Your task to perform on an android device: What does the iPhone 8 look like? Image 0: 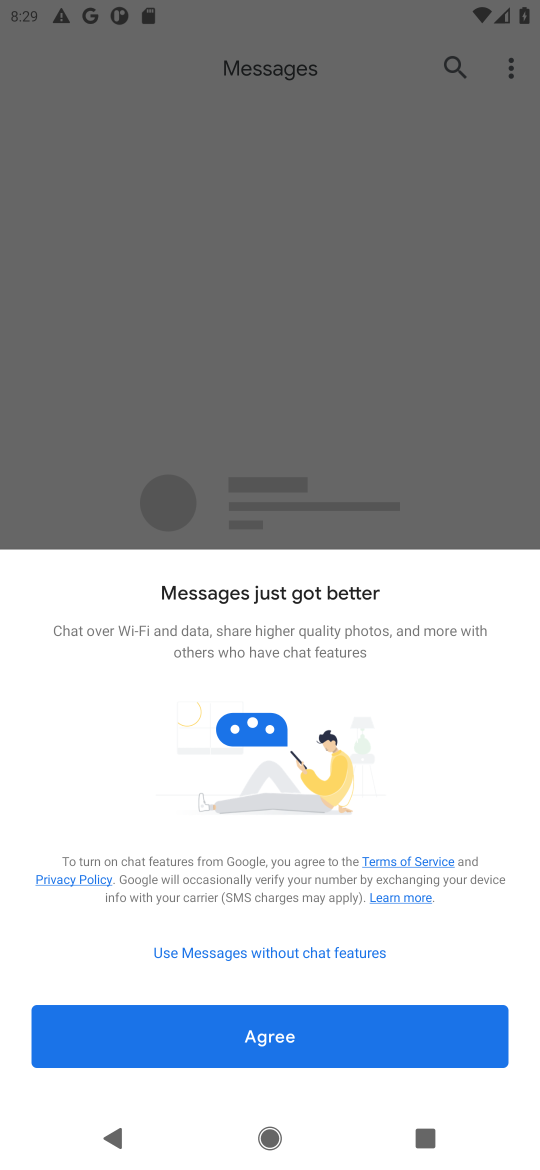
Step 0: press home button
Your task to perform on an android device: What does the iPhone 8 look like? Image 1: 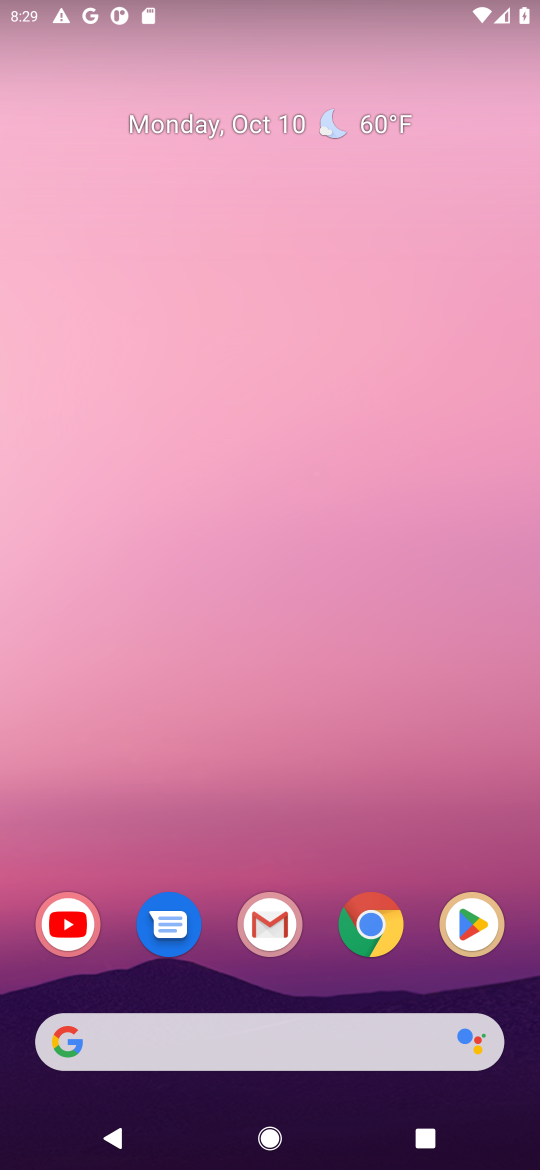
Step 1: click (330, 718)
Your task to perform on an android device: What does the iPhone 8 look like? Image 2: 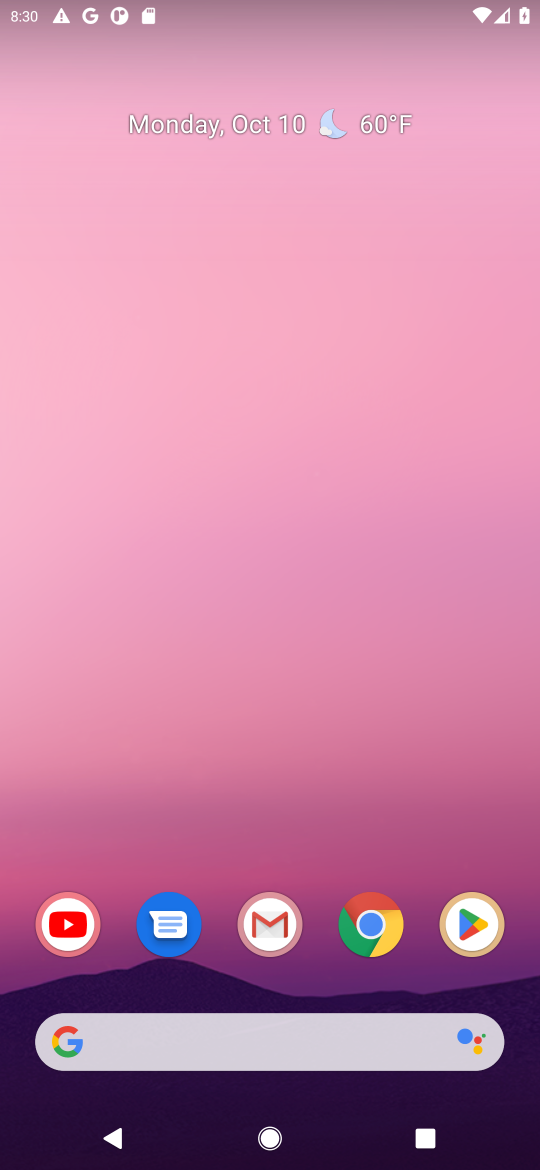
Step 2: drag from (312, 879) to (362, 167)
Your task to perform on an android device: What does the iPhone 8 look like? Image 3: 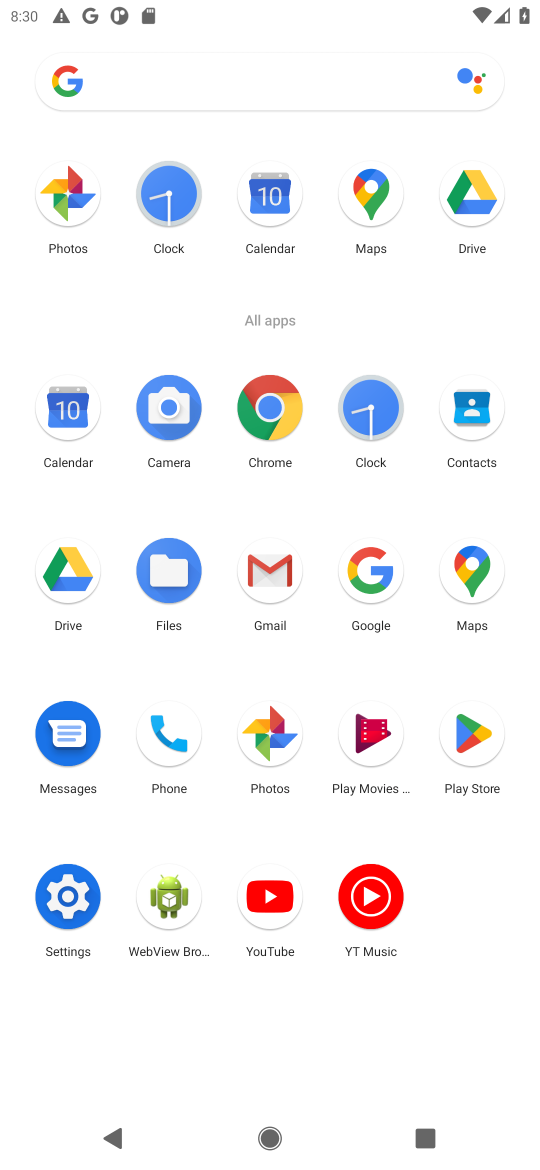
Step 3: click (429, 581)
Your task to perform on an android device: What does the iPhone 8 look like? Image 4: 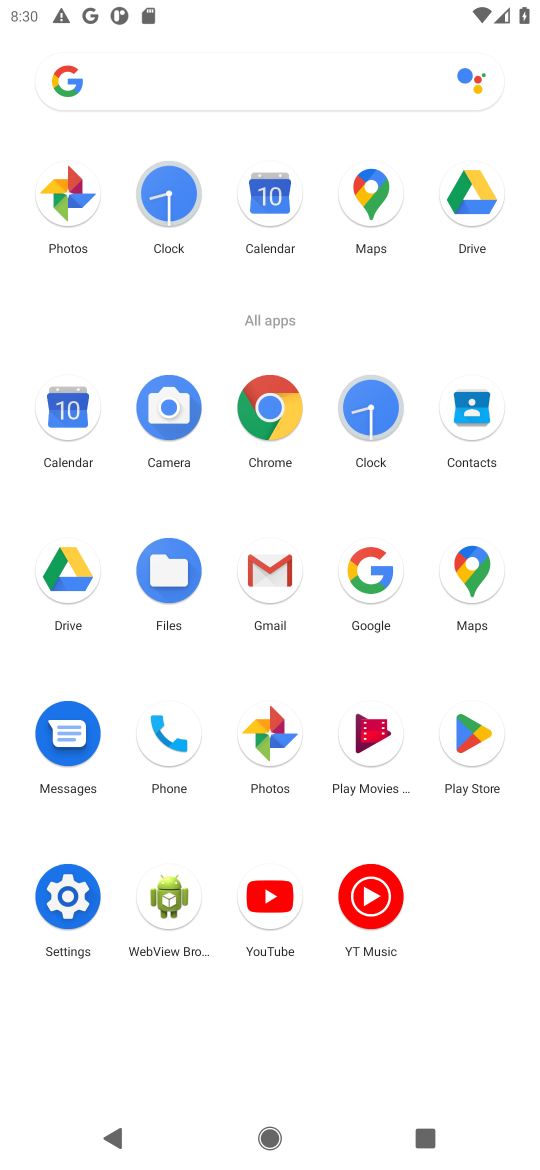
Step 4: click (355, 609)
Your task to perform on an android device: What does the iPhone 8 look like? Image 5: 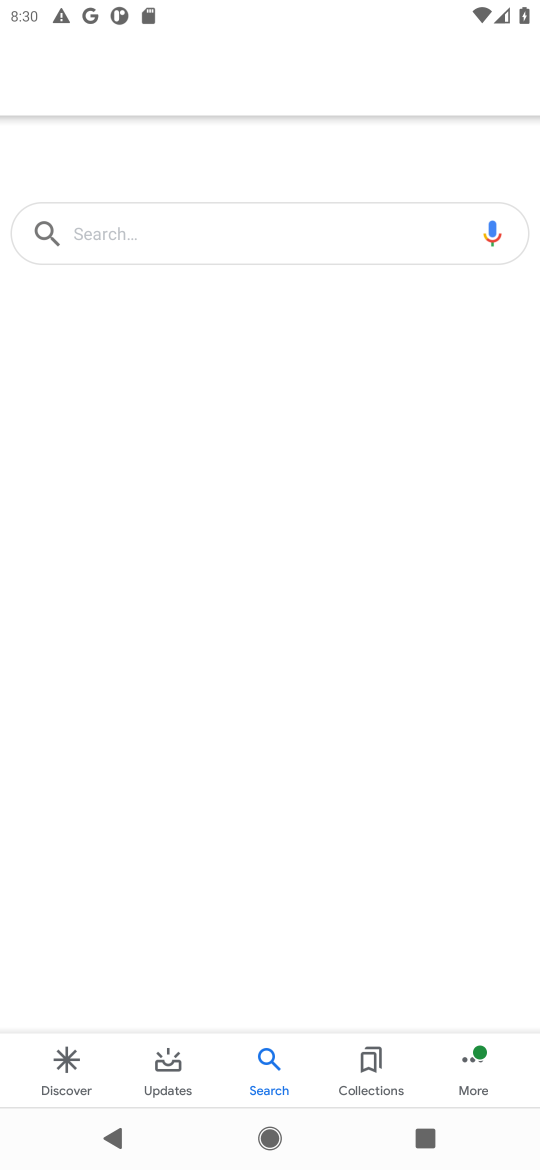
Step 5: click (271, 238)
Your task to perform on an android device: What does the iPhone 8 look like? Image 6: 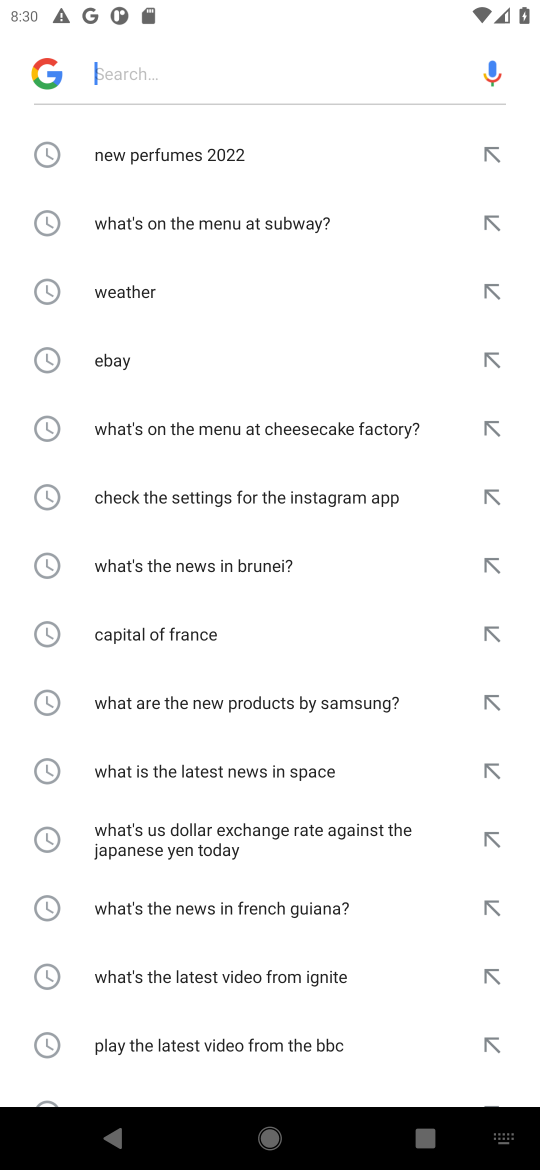
Step 6: type "What does the iPhone 8 look like?"
Your task to perform on an android device: What does the iPhone 8 look like? Image 7: 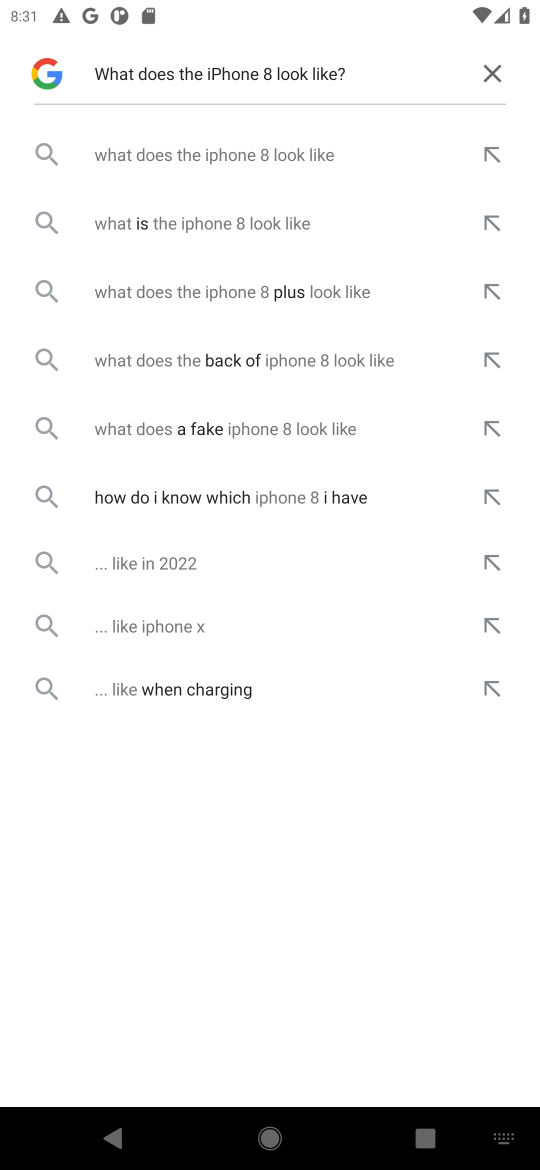
Step 7: type "What does the iPhone 8 look like?"
Your task to perform on an android device: What does the iPhone 8 look like? Image 8: 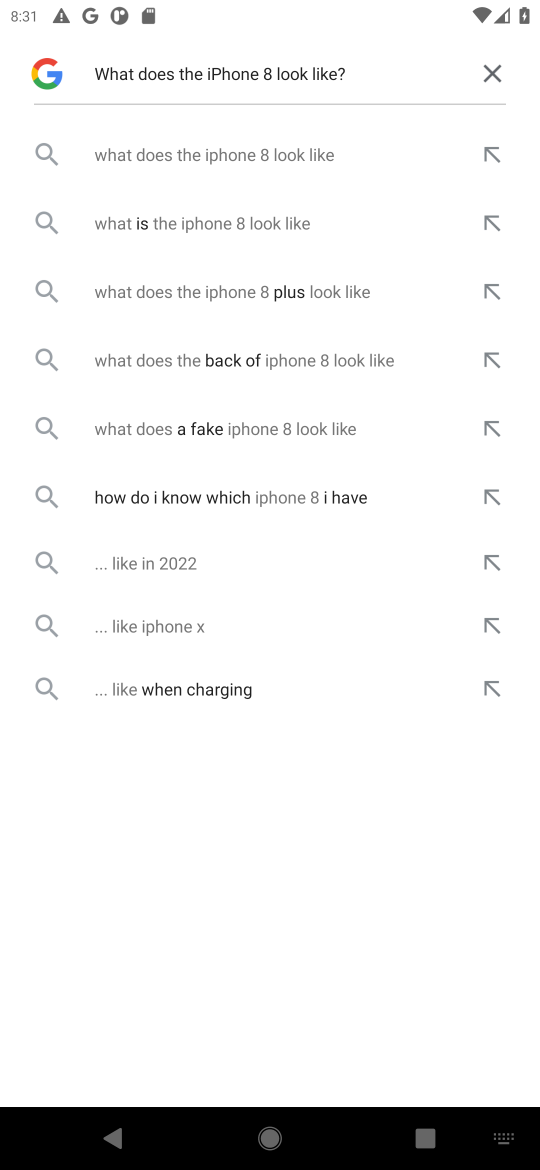
Step 8: click (303, 172)
Your task to perform on an android device: What does the iPhone 8 look like? Image 9: 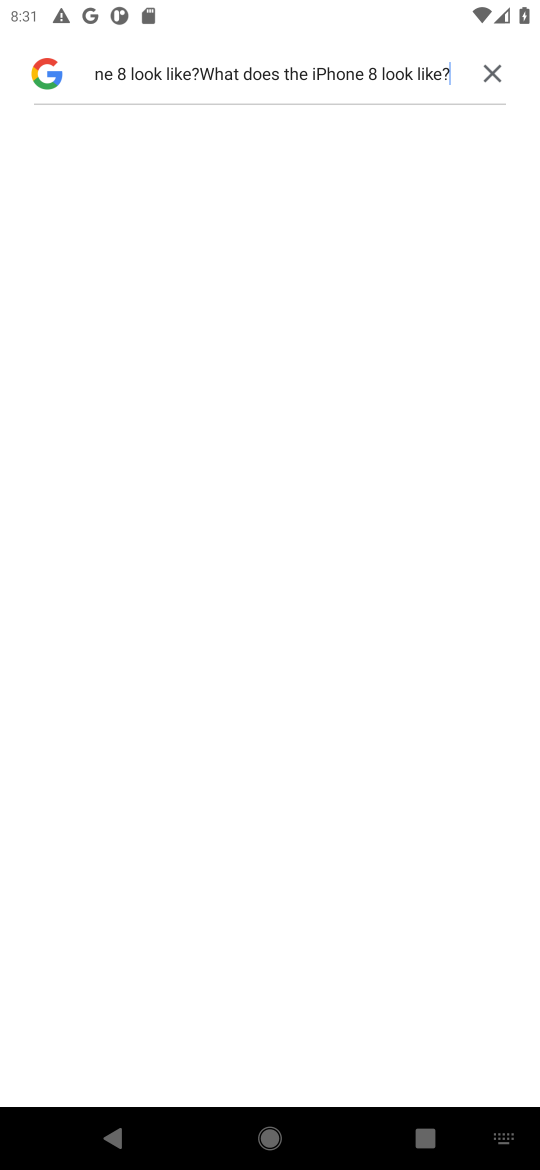
Step 9: click (283, 161)
Your task to perform on an android device: What does the iPhone 8 look like? Image 10: 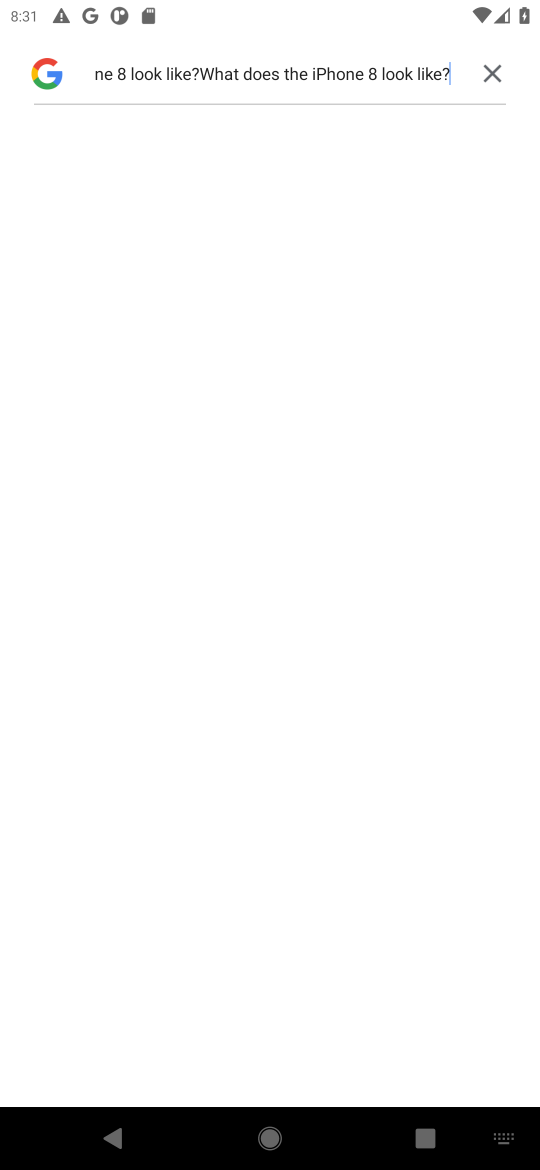
Step 10: click (504, 73)
Your task to perform on an android device: What does the iPhone 8 look like? Image 11: 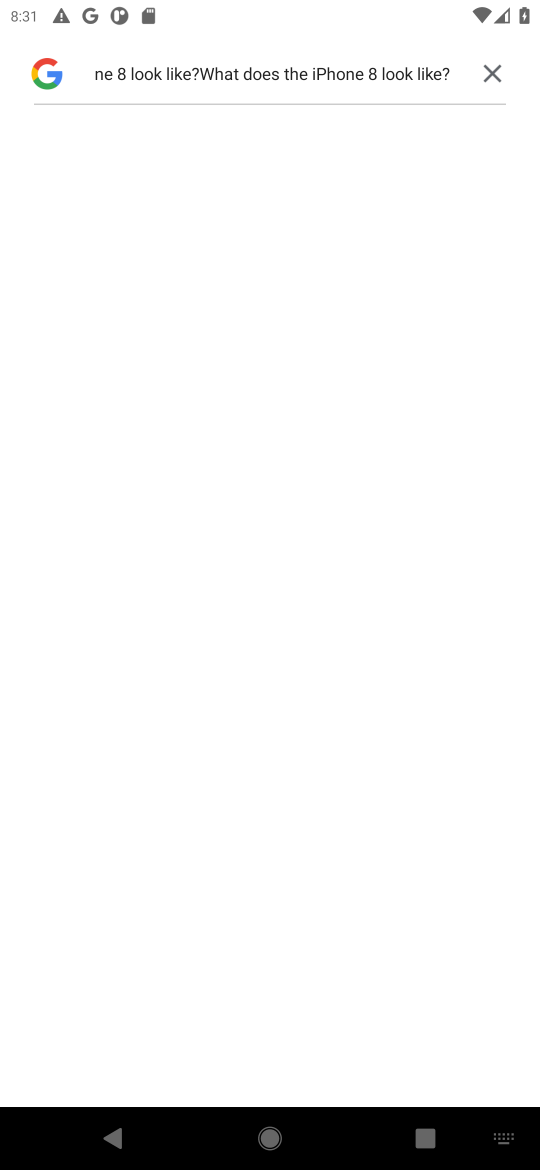
Step 11: click (504, 73)
Your task to perform on an android device: What does the iPhone 8 look like? Image 12: 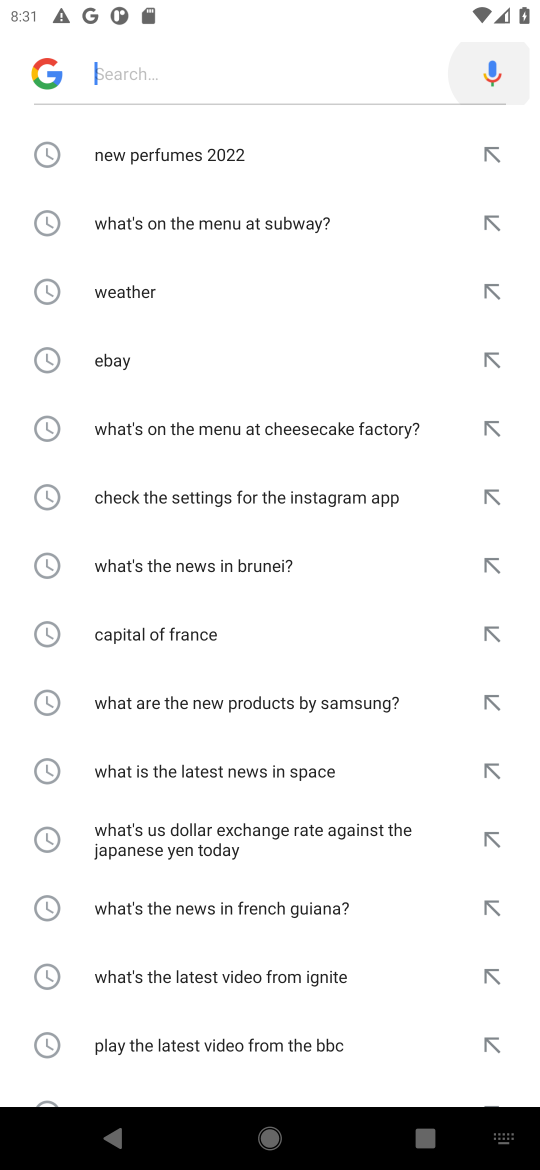
Step 12: click (504, 73)
Your task to perform on an android device: What does the iPhone 8 look like? Image 13: 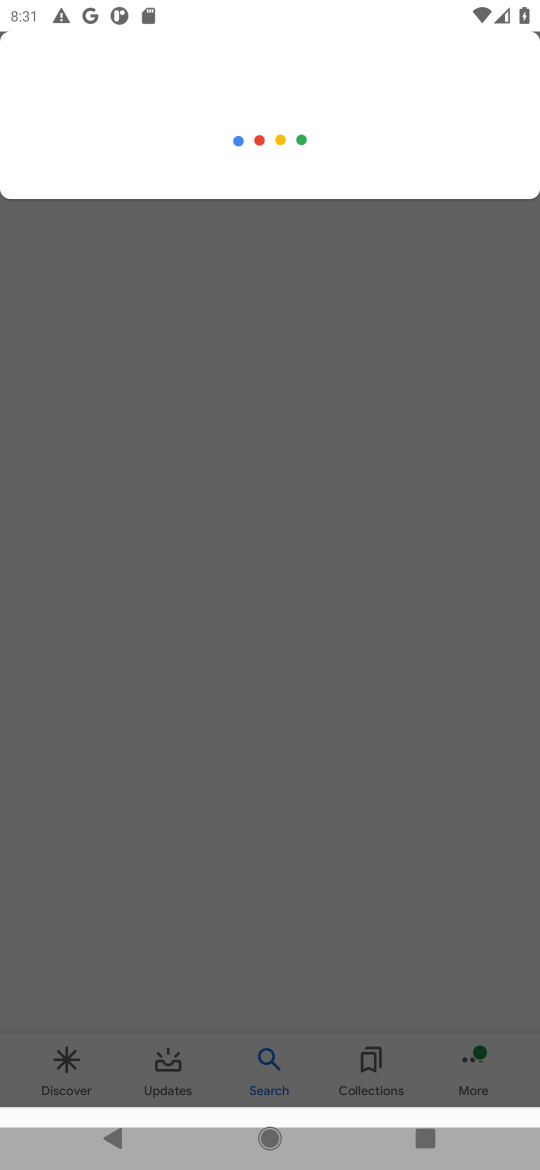
Step 13: click (504, 73)
Your task to perform on an android device: What does the iPhone 8 look like? Image 14: 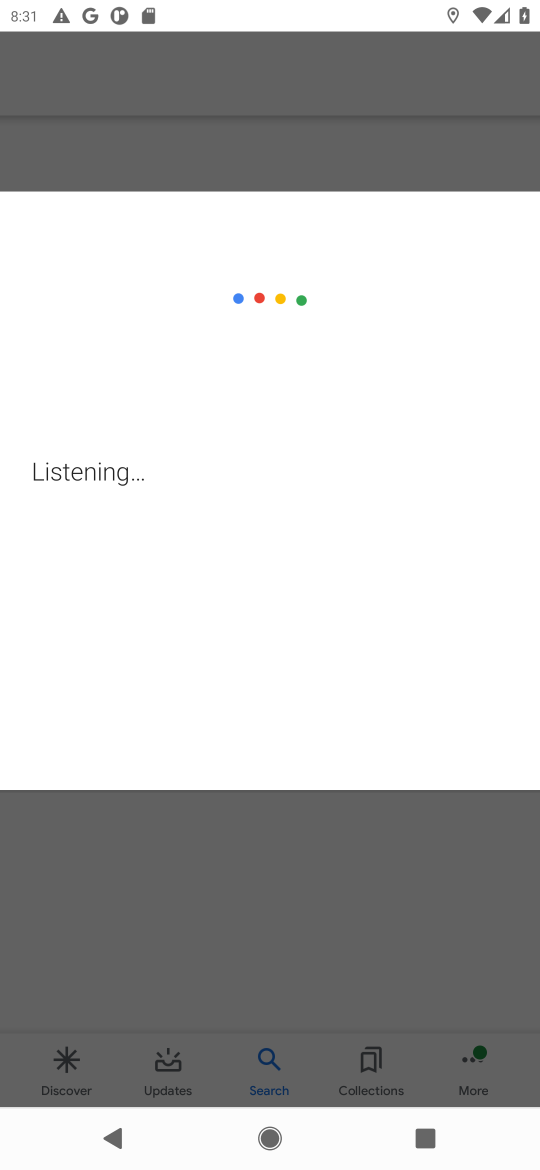
Step 14: press back button
Your task to perform on an android device: What does the iPhone 8 look like? Image 15: 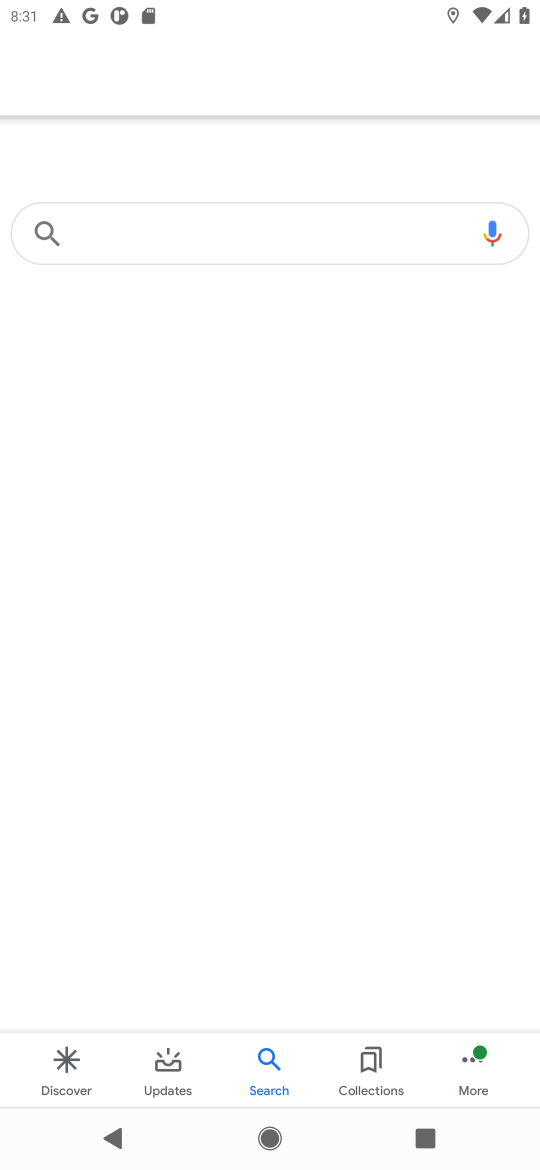
Step 15: click (402, 247)
Your task to perform on an android device: What does the iPhone 8 look like? Image 16: 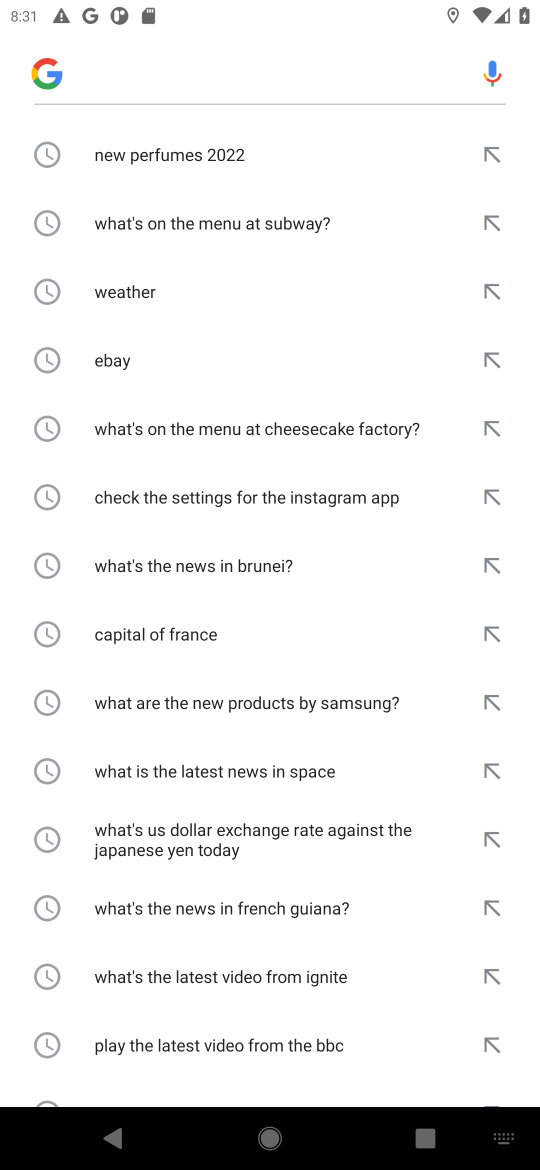
Step 16: type "What does the iPhone 8 look like?"
Your task to perform on an android device: What does the iPhone 8 look like? Image 17: 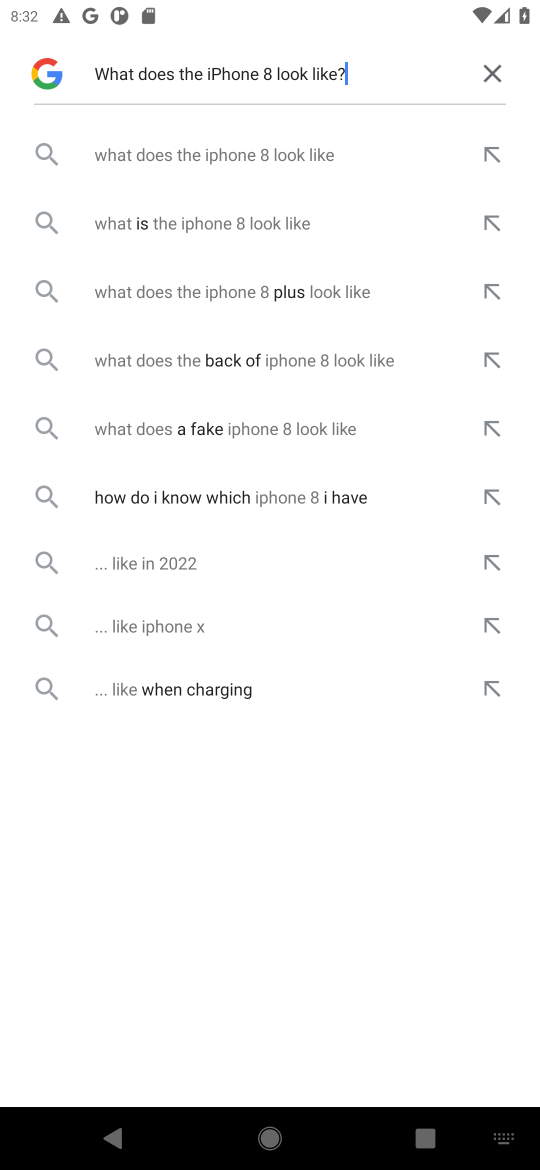
Step 17: click (215, 149)
Your task to perform on an android device: What does the iPhone 8 look like? Image 18: 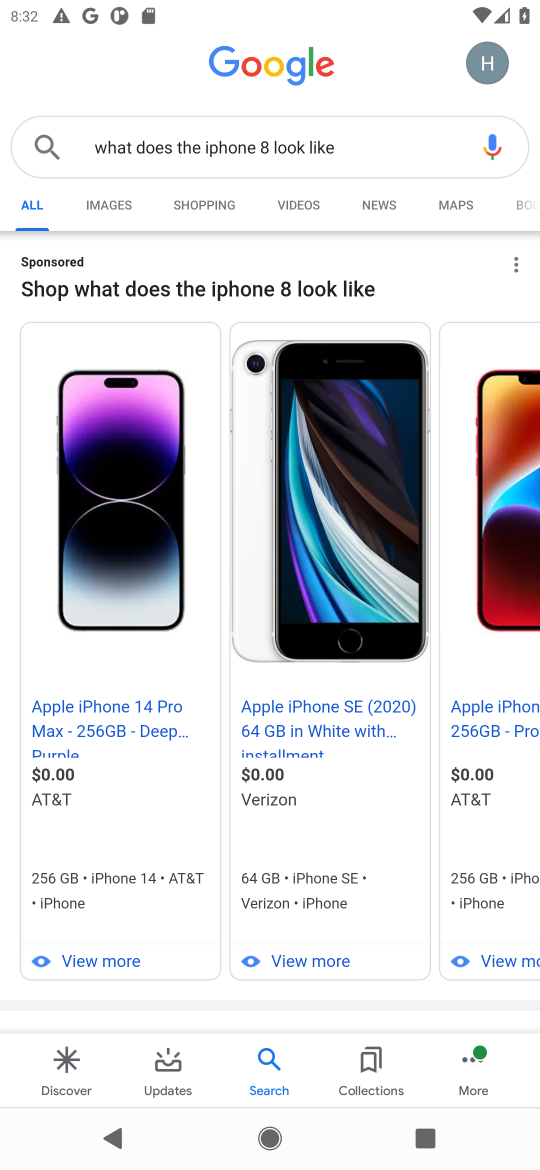
Step 18: task complete